Your task to perform on an android device: install app "Microsoft Excel" Image 0: 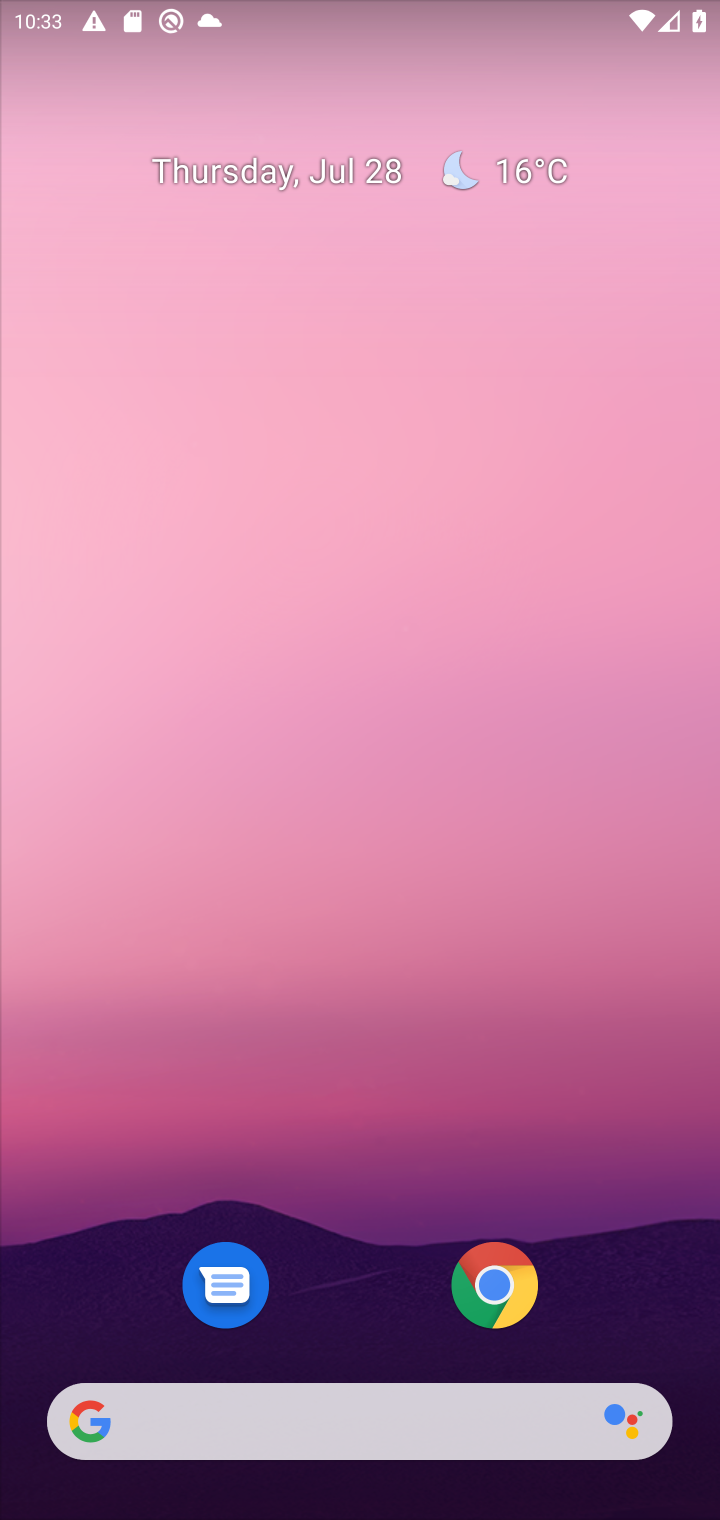
Step 0: drag from (434, 1193) to (434, 416)
Your task to perform on an android device: install app "Microsoft Excel" Image 1: 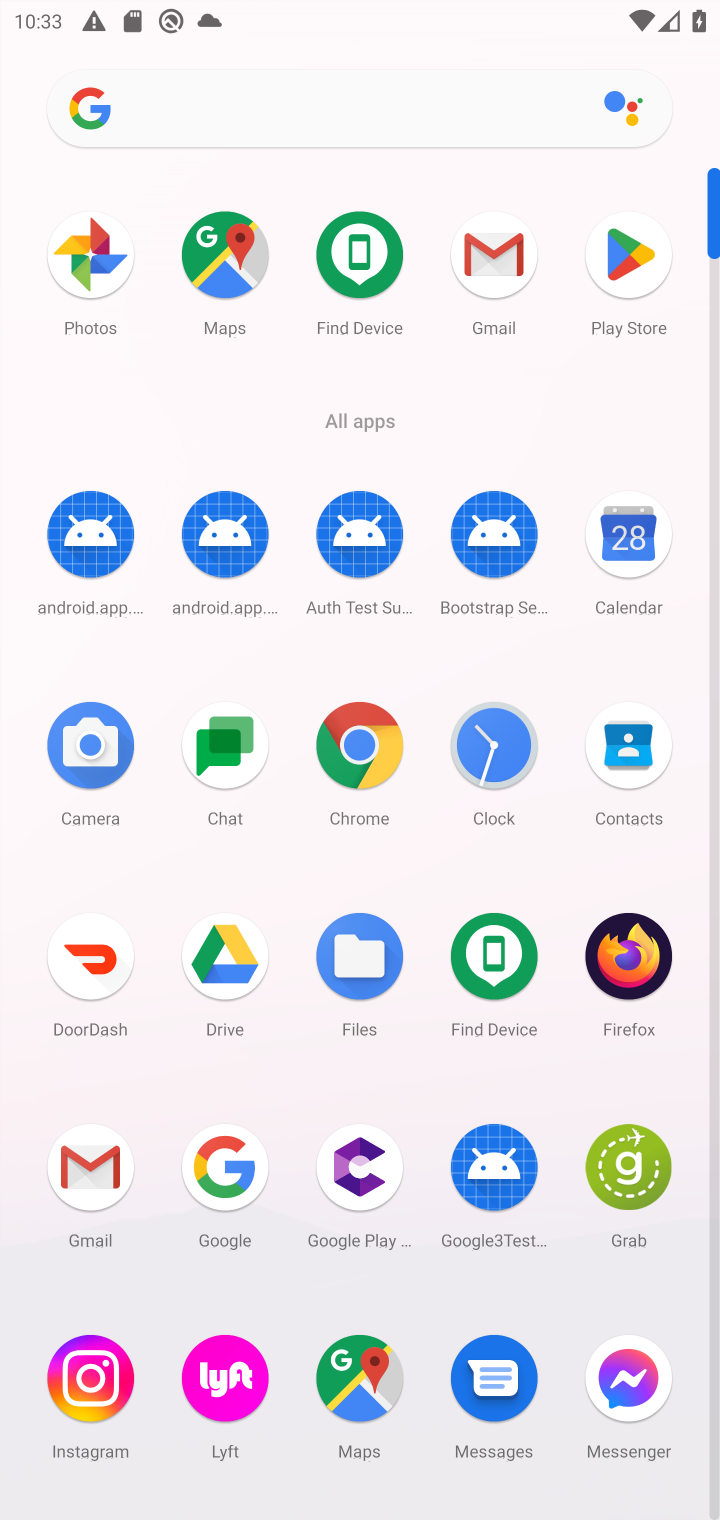
Step 1: click (637, 268)
Your task to perform on an android device: install app "Microsoft Excel" Image 2: 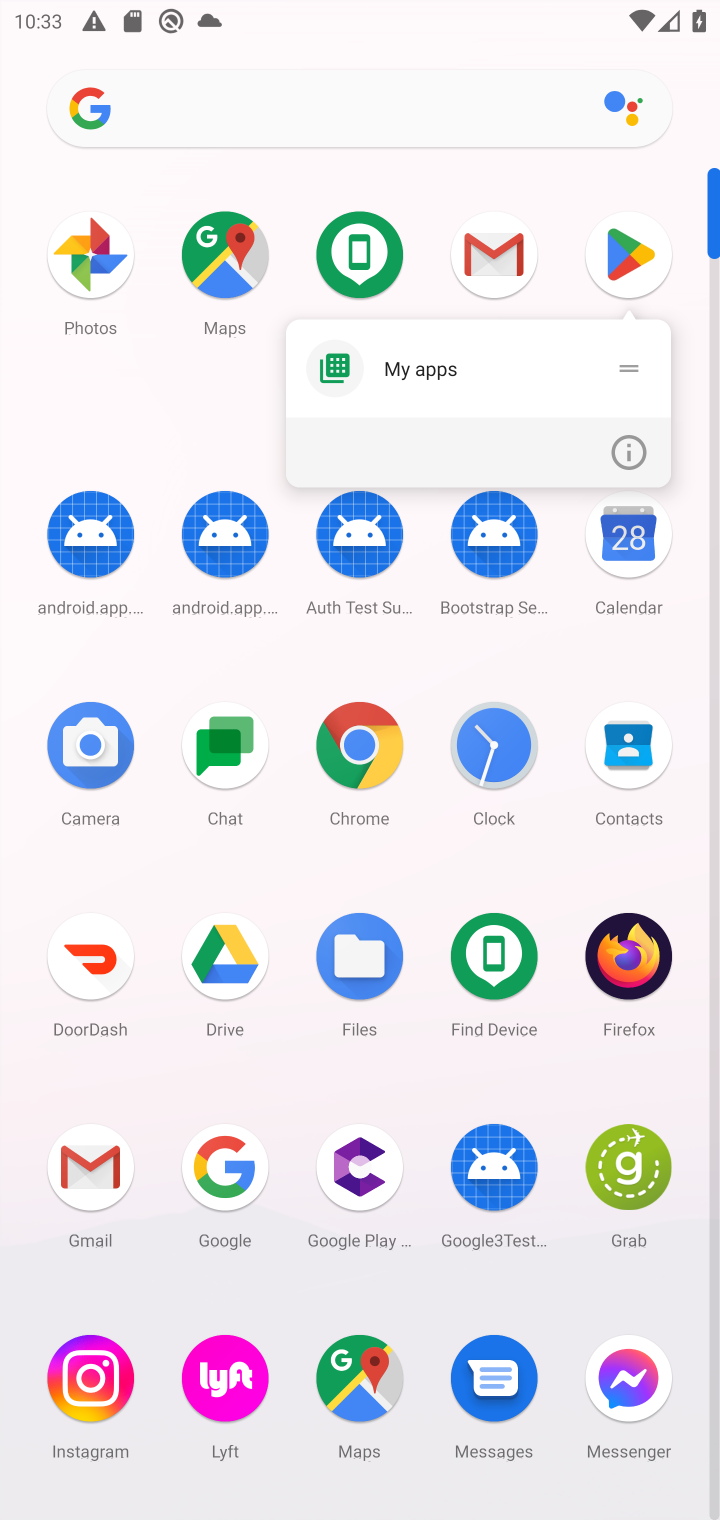
Step 2: click (636, 260)
Your task to perform on an android device: install app "Microsoft Excel" Image 3: 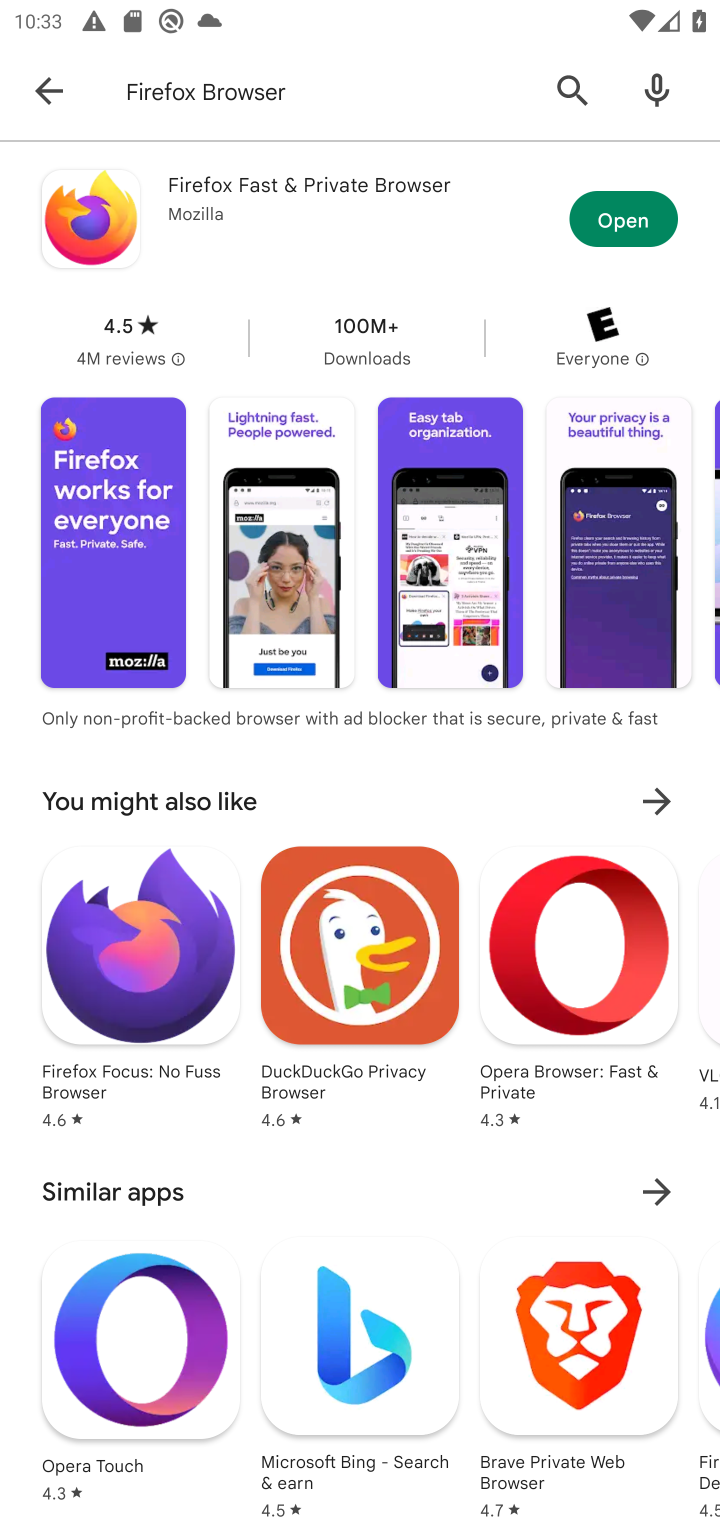
Step 3: click (303, 98)
Your task to perform on an android device: install app "Microsoft Excel" Image 4: 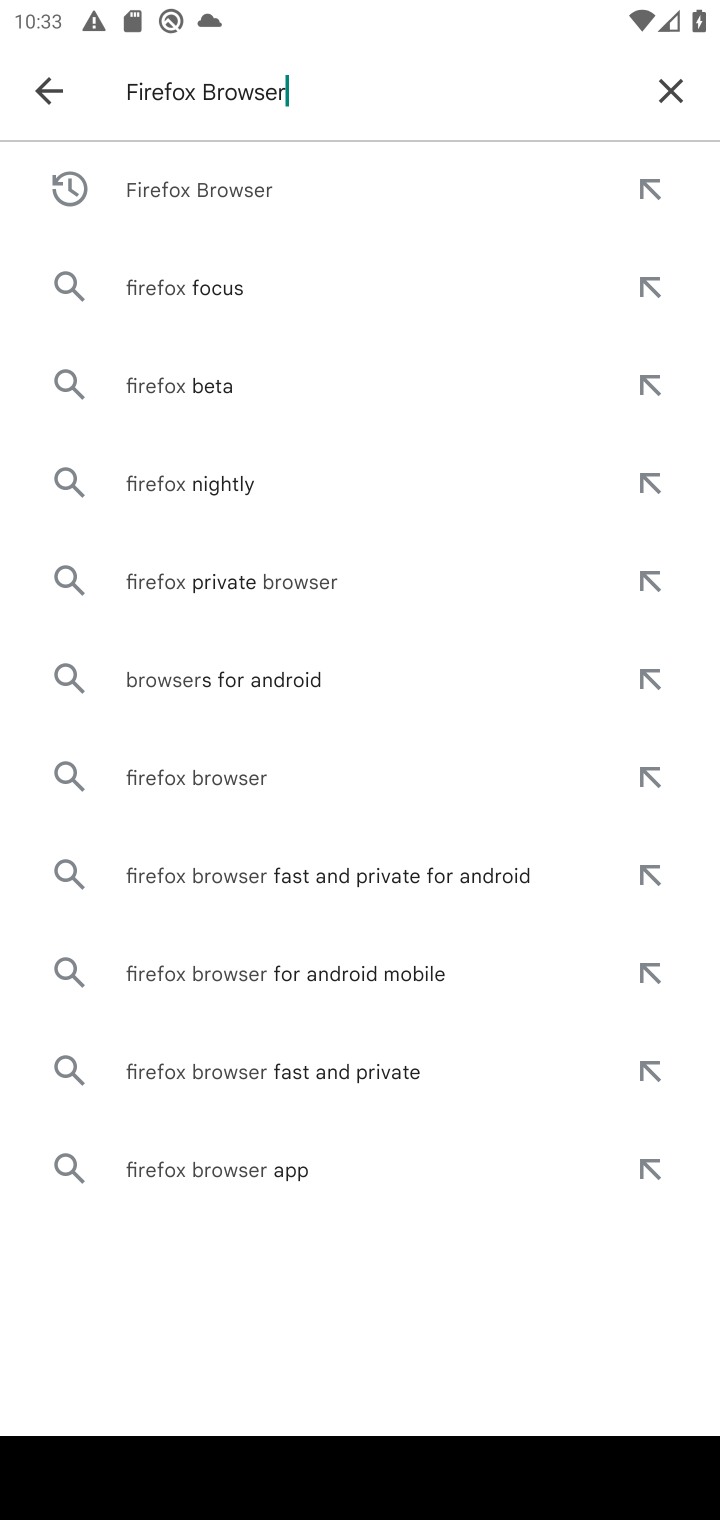
Step 4: click (677, 86)
Your task to perform on an android device: install app "Microsoft Excel" Image 5: 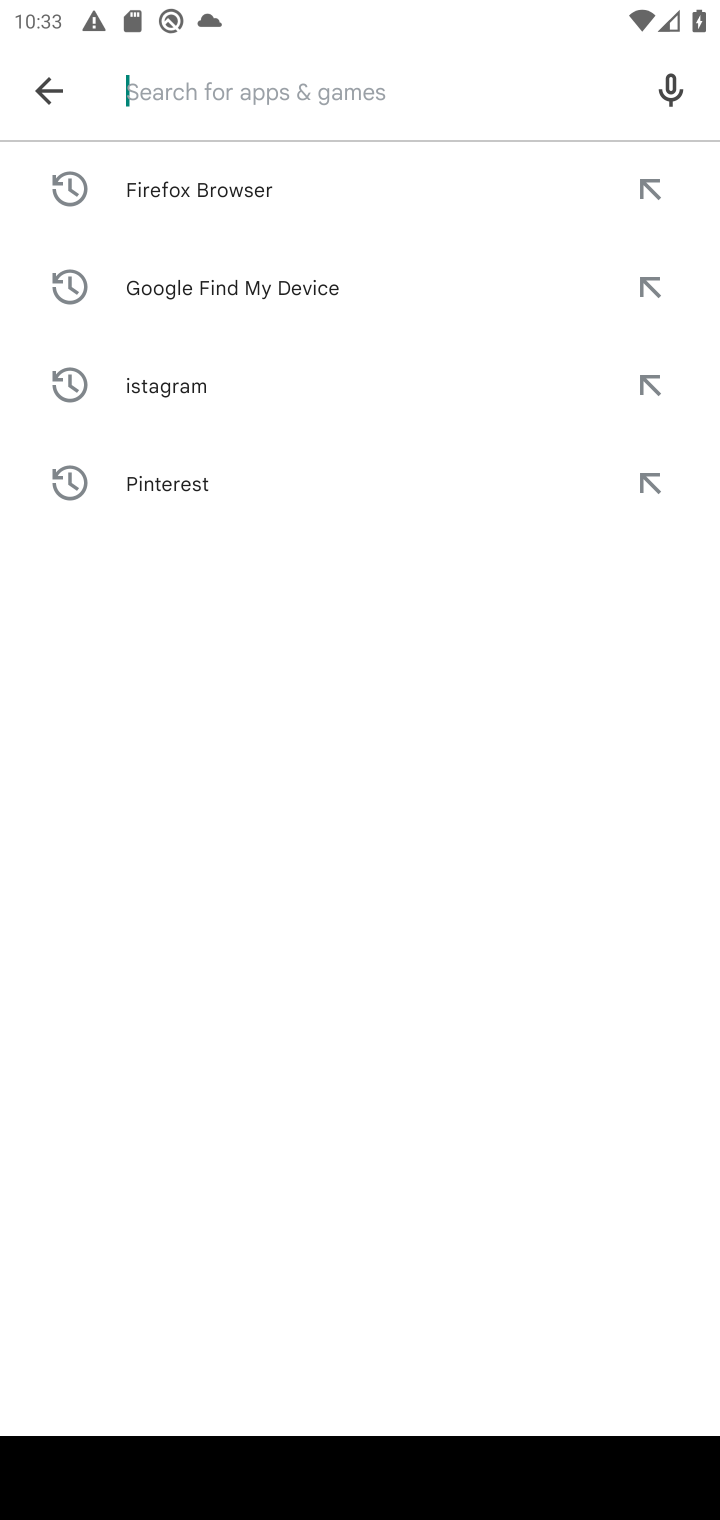
Step 5: type "Microsoft Excel"
Your task to perform on an android device: install app "Microsoft Excel" Image 6: 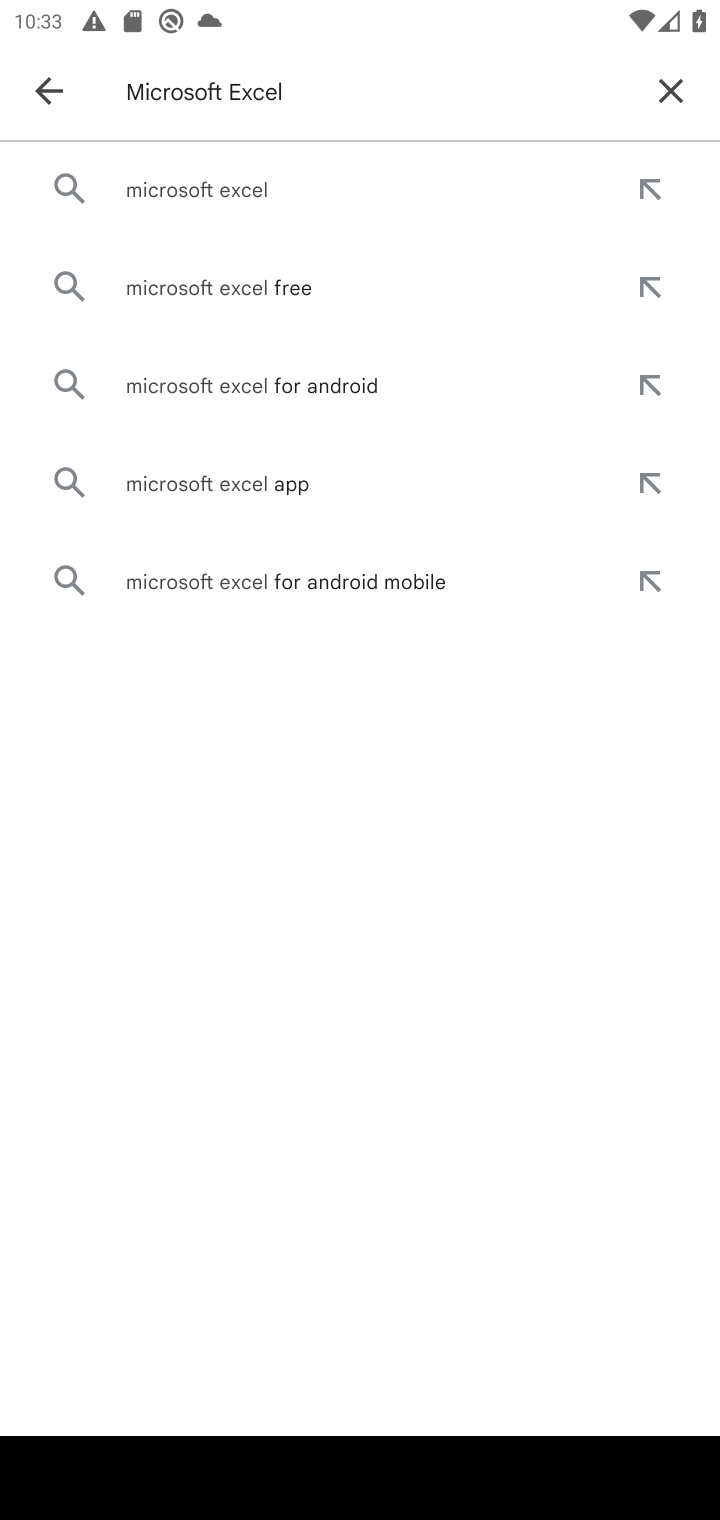
Step 6: press enter
Your task to perform on an android device: install app "Microsoft Excel" Image 7: 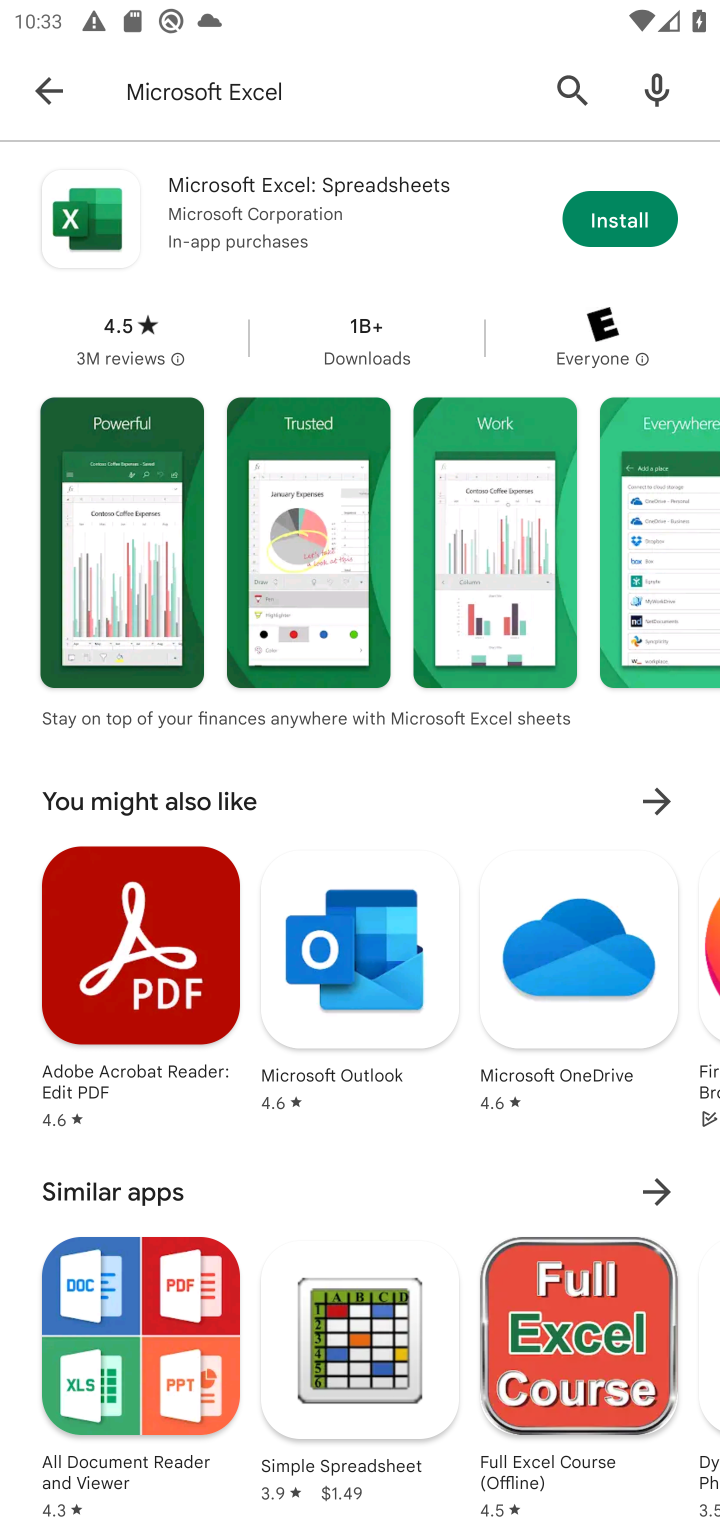
Step 7: click (627, 220)
Your task to perform on an android device: install app "Microsoft Excel" Image 8: 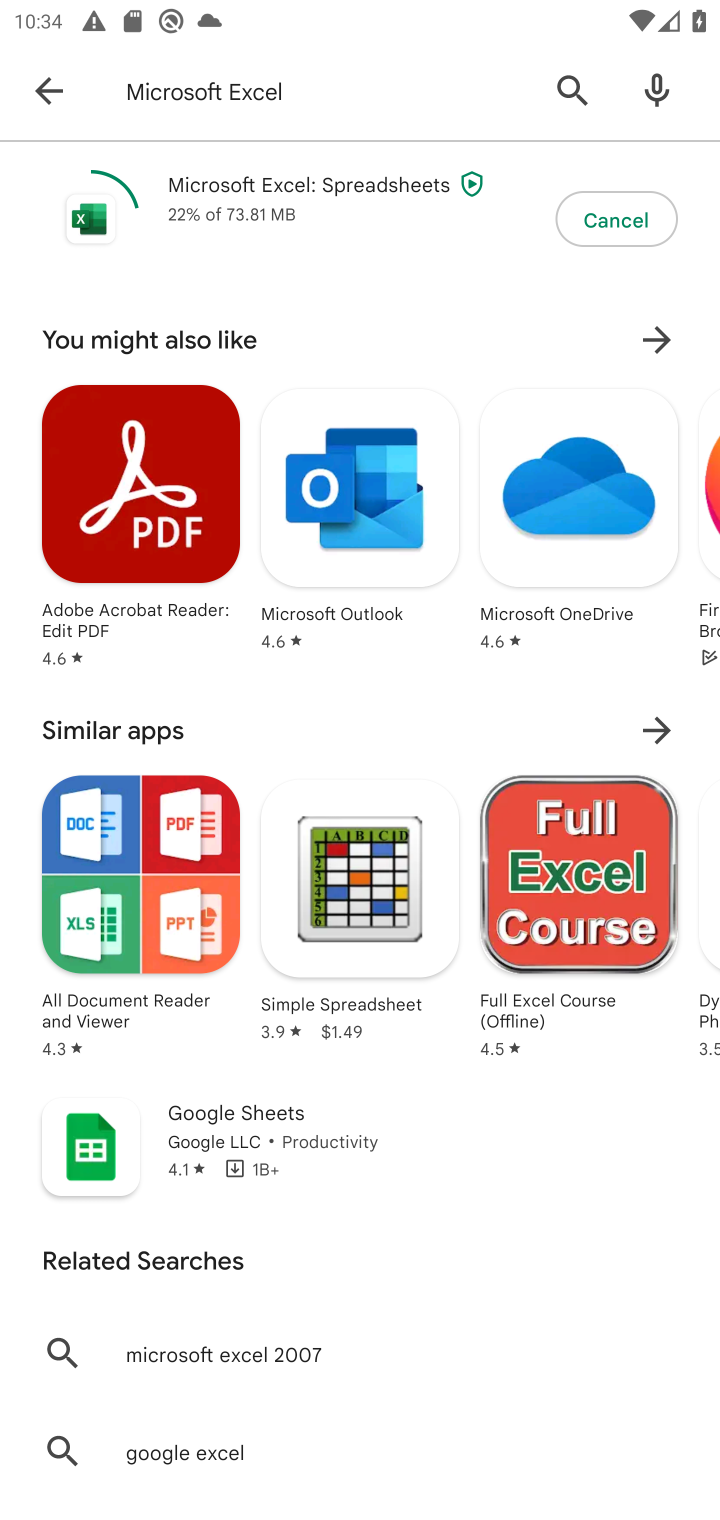
Step 8: task complete